Your task to perform on an android device: Check the news Image 0: 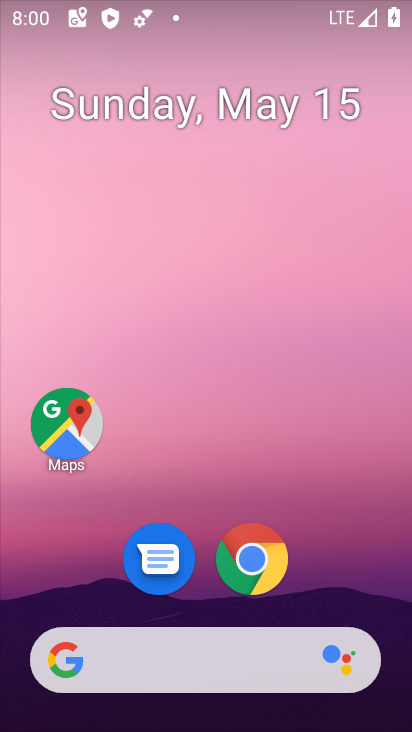
Step 0: click (234, 649)
Your task to perform on an android device: Check the news Image 1: 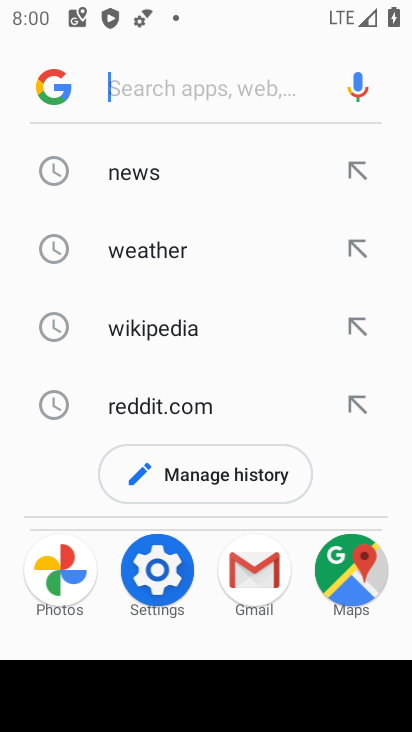
Step 1: click (177, 170)
Your task to perform on an android device: Check the news Image 2: 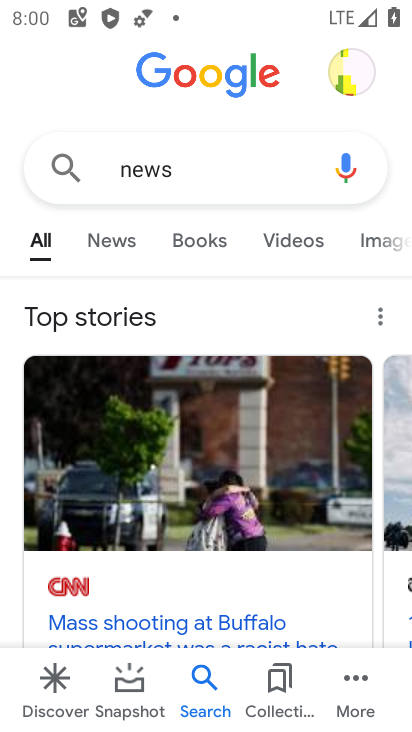
Step 2: task complete